Your task to perform on an android device: Go to settings Image 0: 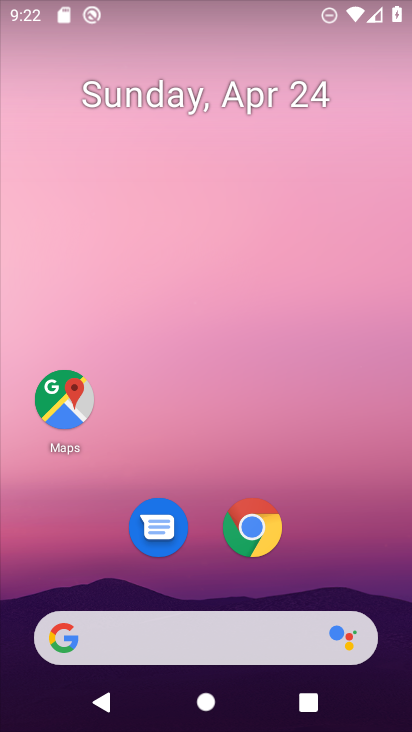
Step 0: drag from (387, 613) to (296, 64)
Your task to perform on an android device: Go to settings Image 1: 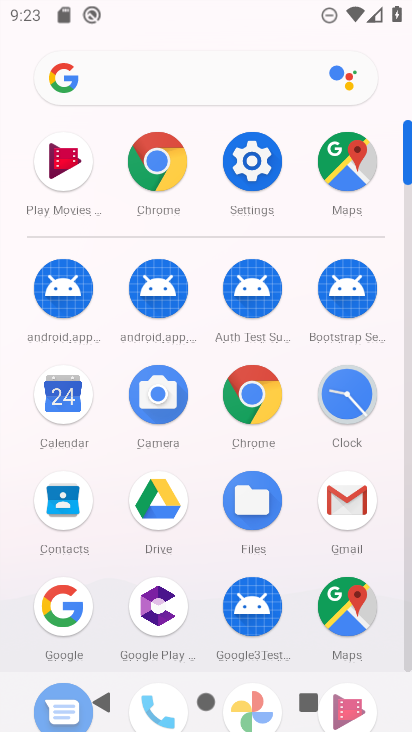
Step 1: click (265, 176)
Your task to perform on an android device: Go to settings Image 2: 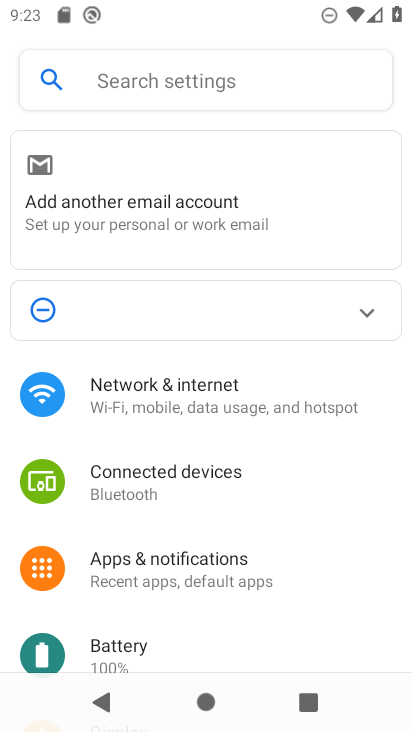
Step 2: task complete